Your task to perform on an android device: open a bookmark in the chrome app Image 0: 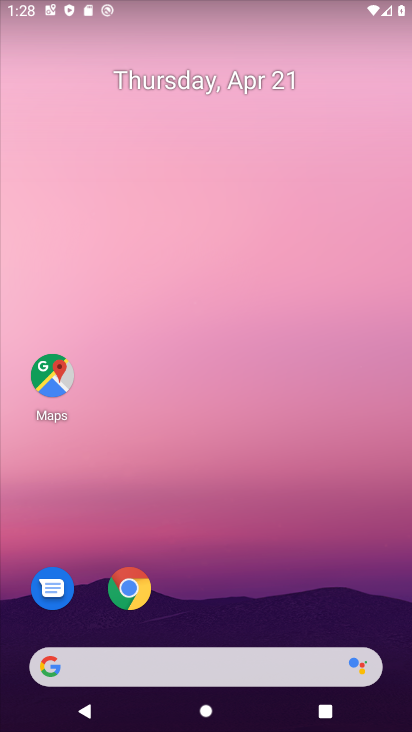
Step 0: drag from (237, 599) to (270, 102)
Your task to perform on an android device: open a bookmark in the chrome app Image 1: 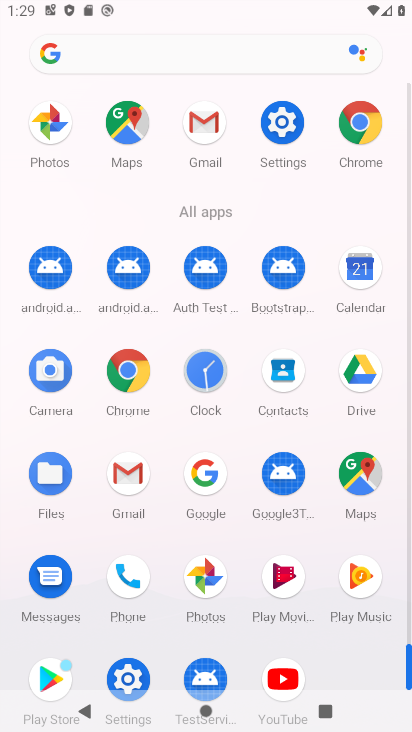
Step 1: click (370, 134)
Your task to perform on an android device: open a bookmark in the chrome app Image 2: 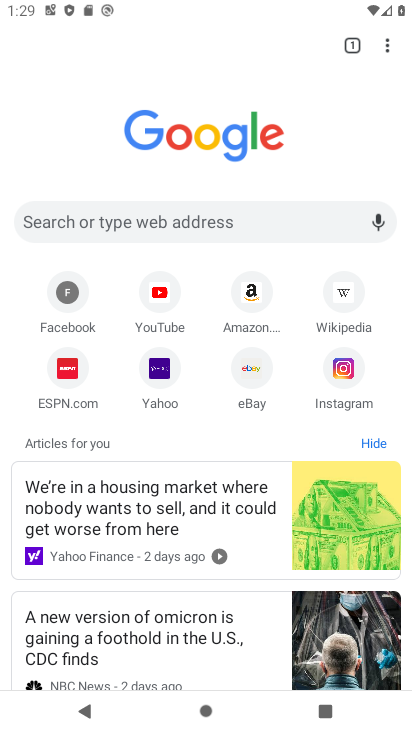
Step 2: click (381, 44)
Your task to perform on an android device: open a bookmark in the chrome app Image 3: 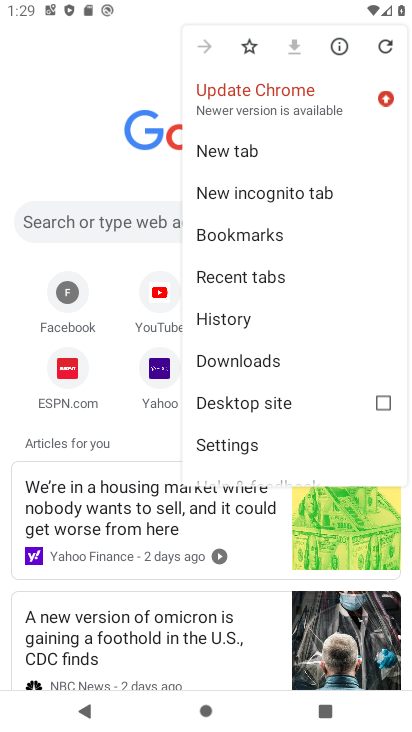
Step 3: click (255, 245)
Your task to perform on an android device: open a bookmark in the chrome app Image 4: 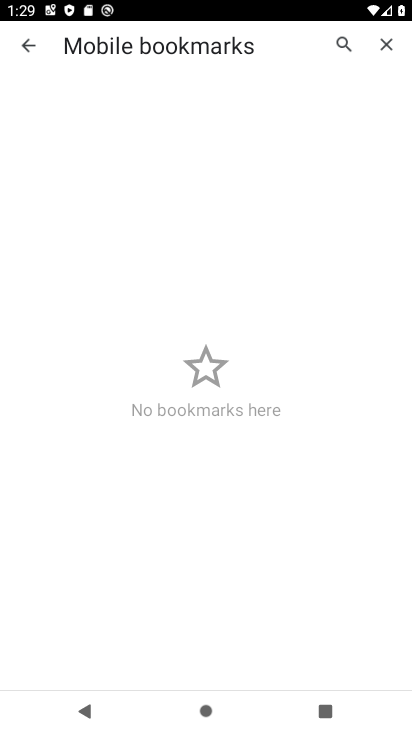
Step 4: click (255, 245)
Your task to perform on an android device: open a bookmark in the chrome app Image 5: 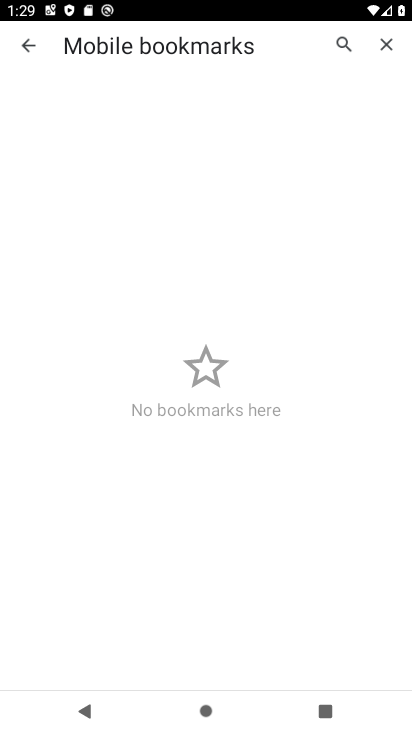
Step 5: task complete